Your task to perform on an android device: delete a single message in the gmail app Image 0: 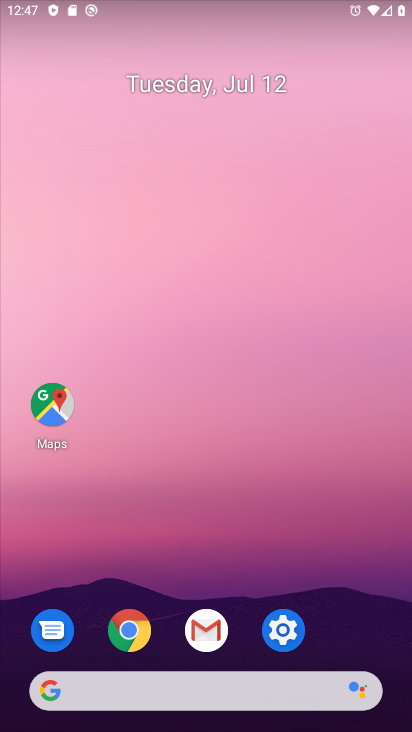
Step 0: click (202, 637)
Your task to perform on an android device: delete a single message in the gmail app Image 1: 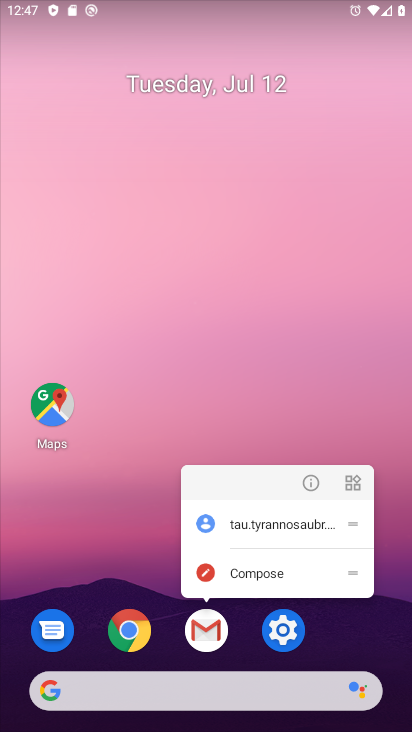
Step 1: click (203, 623)
Your task to perform on an android device: delete a single message in the gmail app Image 2: 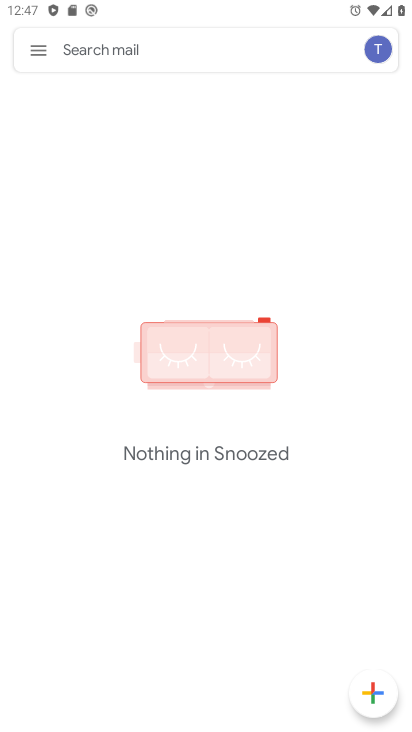
Step 2: click (47, 54)
Your task to perform on an android device: delete a single message in the gmail app Image 3: 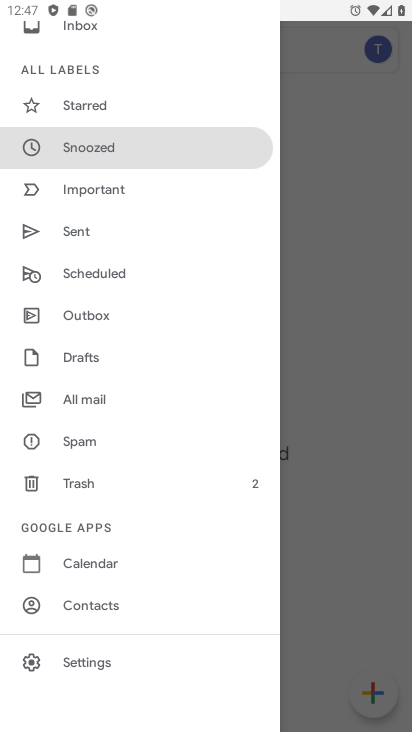
Step 3: click (85, 400)
Your task to perform on an android device: delete a single message in the gmail app Image 4: 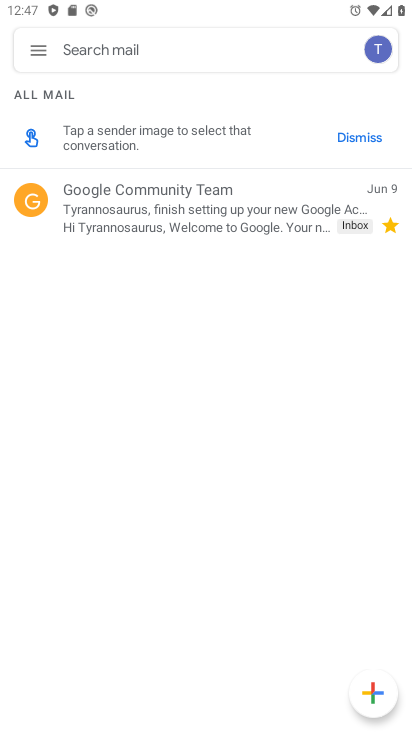
Step 4: click (178, 221)
Your task to perform on an android device: delete a single message in the gmail app Image 5: 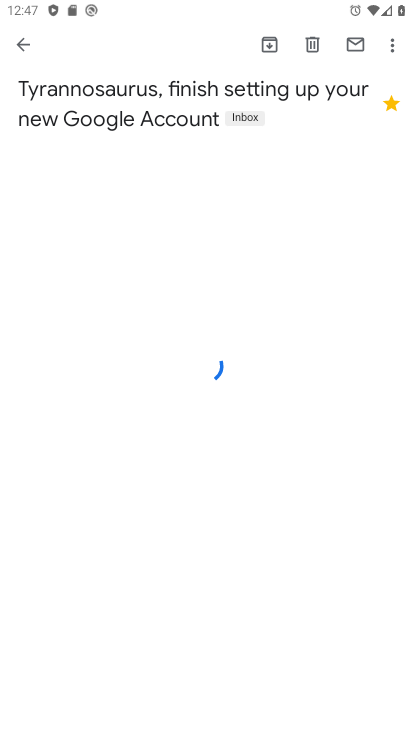
Step 5: click (325, 49)
Your task to perform on an android device: delete a single message in the gmail app Image 6: 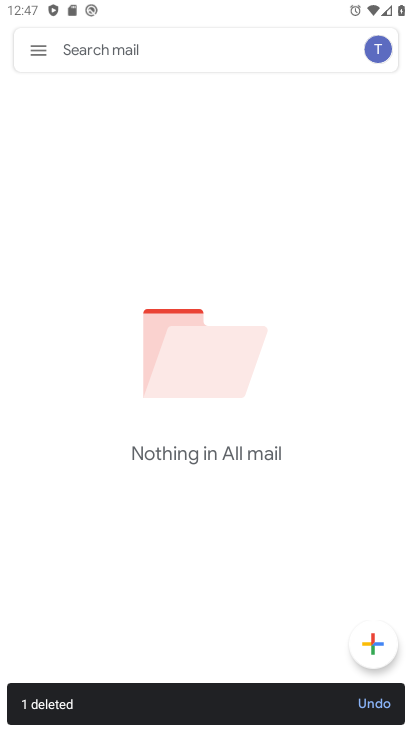
Step 6: task complete